Your task to perform on an android device: remove spam from my inbox in the gmail app Image 0: 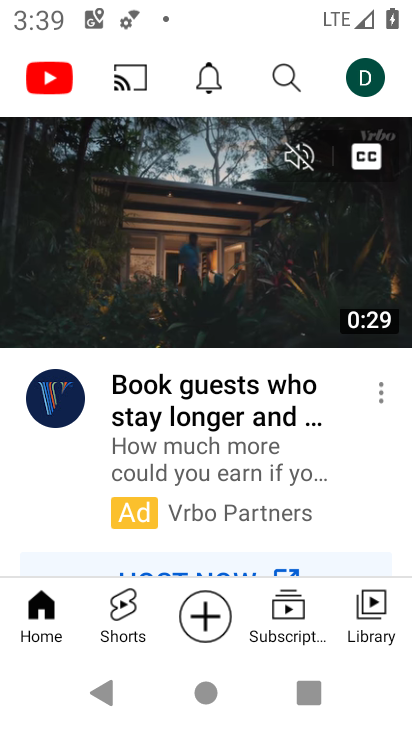
Step 0: press home button
Your task to perform on an android device: remove spam from my inbox in the gmail app Image 1: 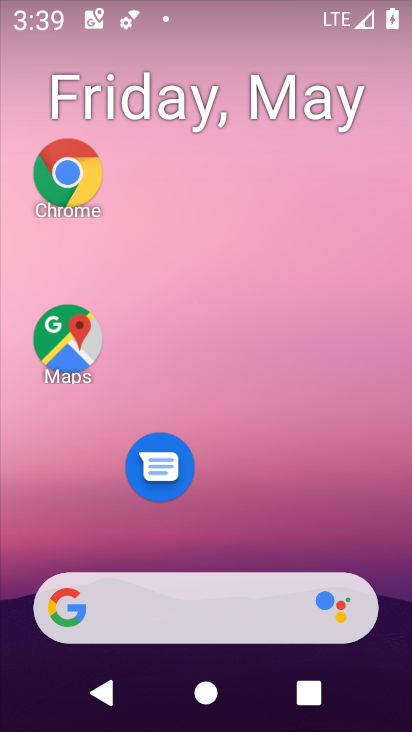
Step 1: drag from (307, 500) to (204, 78)
Your task to perform on an android device: remove spam from my inbox in the gmail app Image 2: 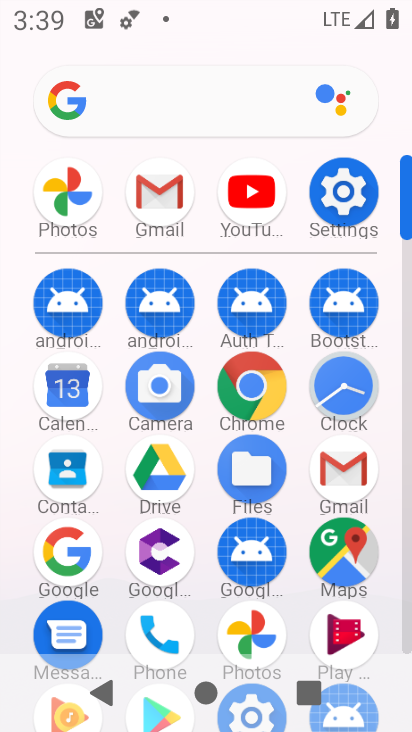
Step 2: click (162, 190)
Your task to perform on an android device: remove spam from my inbox in the gmail app Image 3: 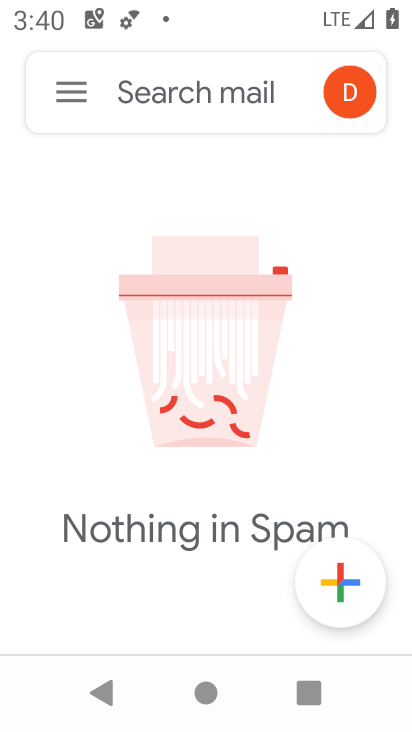
Step 3: task complete